Your task to perform on an android device: Is it going to rain tomorrow? Image 0: 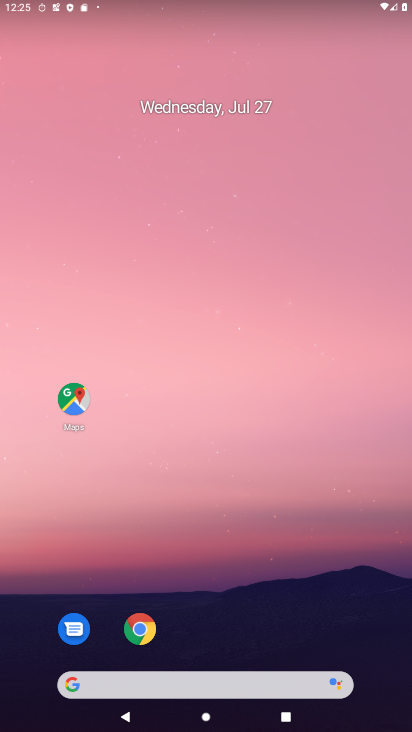
Step 0: drag from (335, 627) to (200, 34)
Your task to perform on an android device: Is it going to rain tomorrow? Image 1: 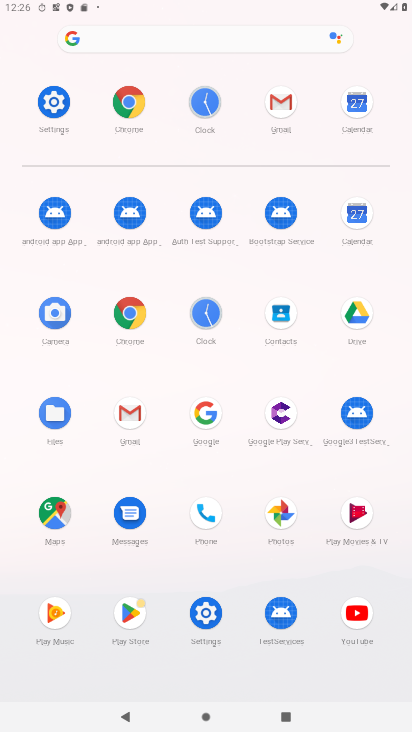
Step 1: click (210, 423)
Your task to perform on an android device: Is it going to rain tomorrow? Image 2: 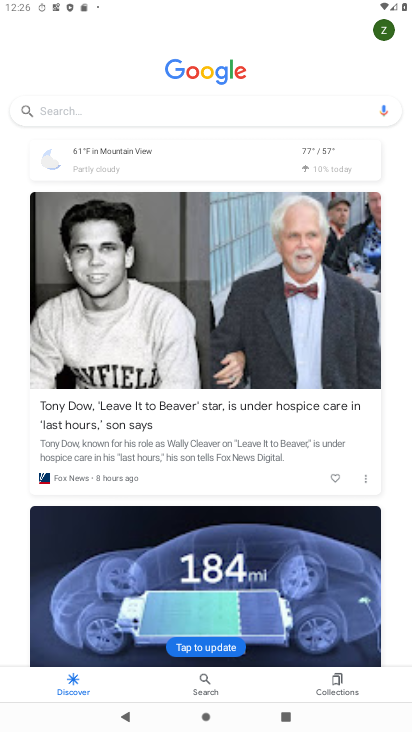
Step 2: click (84, 108)
Your task to perform on an android device: Is it going to rain tomorrow? Image 3: 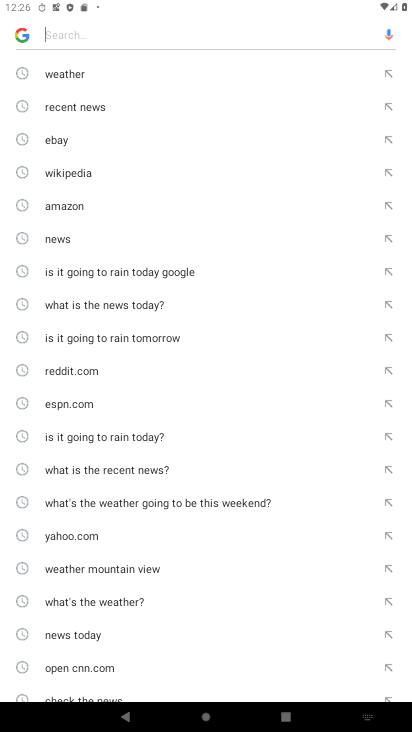
Step 3: type "Is it going to rain tomorrow?"
Your task to perform on an android device: Is it going to rain tomorrow? Image 4: 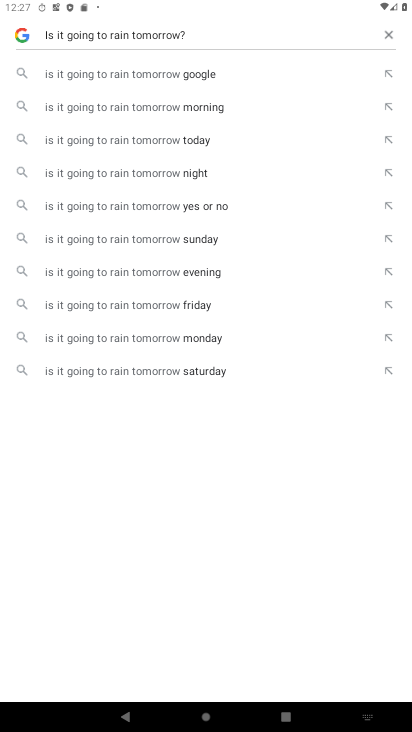
Step 4: click (104, 77)
Your task to perform on an android device: Is it going to rain tomorrow? Image 5: 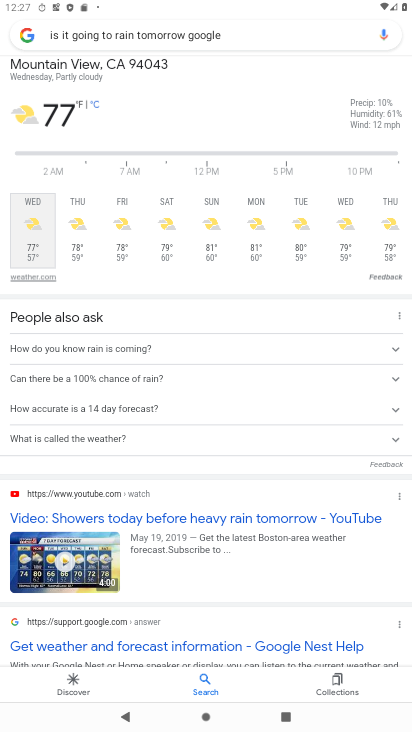
Step 5: task complete